Your task to perform on an android device: What's on my calendar today? Image 0: 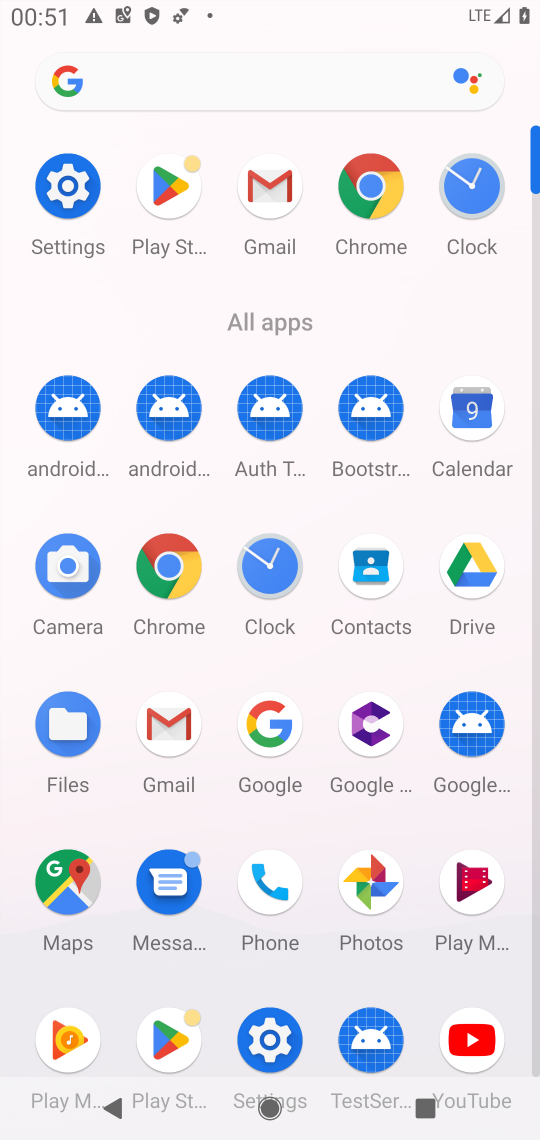
Step 0: press home button
Your task to perform on an android device: What's on my calendar today? Image 1: 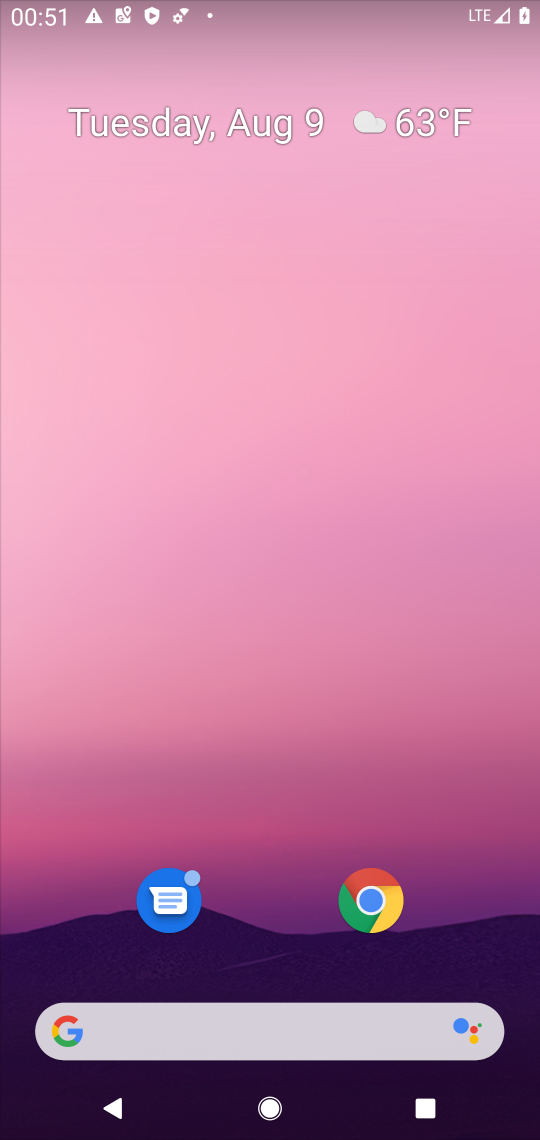
Step 1: drag from (279, 784) to (353, 218)
Your task to perform on an android device: What's on my calendar today? Image 2: 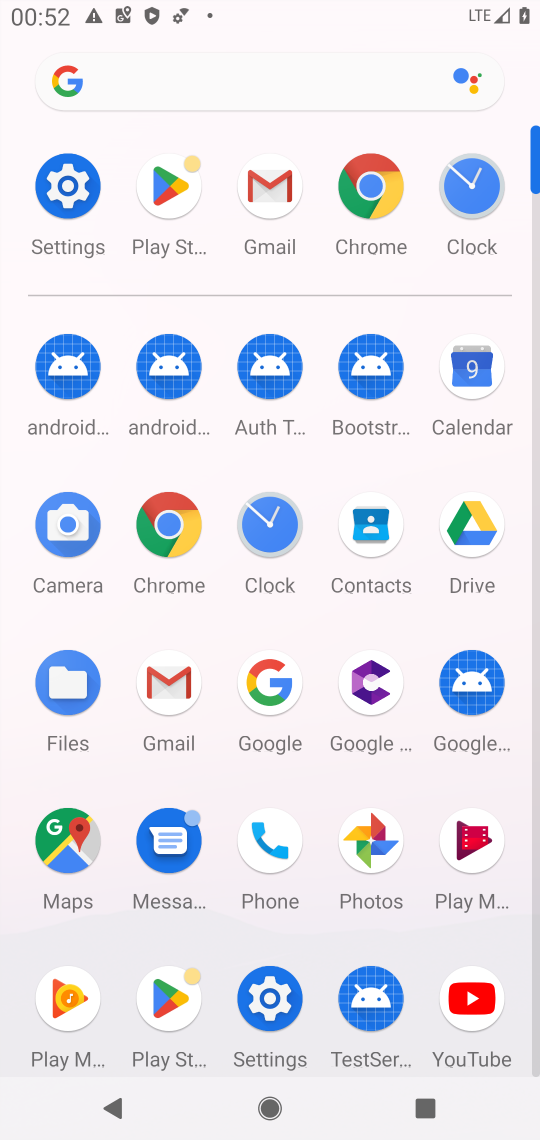
Step 2: click (468, 358)
Your task to perform on an android device: What's on my calendar today? Image 3: 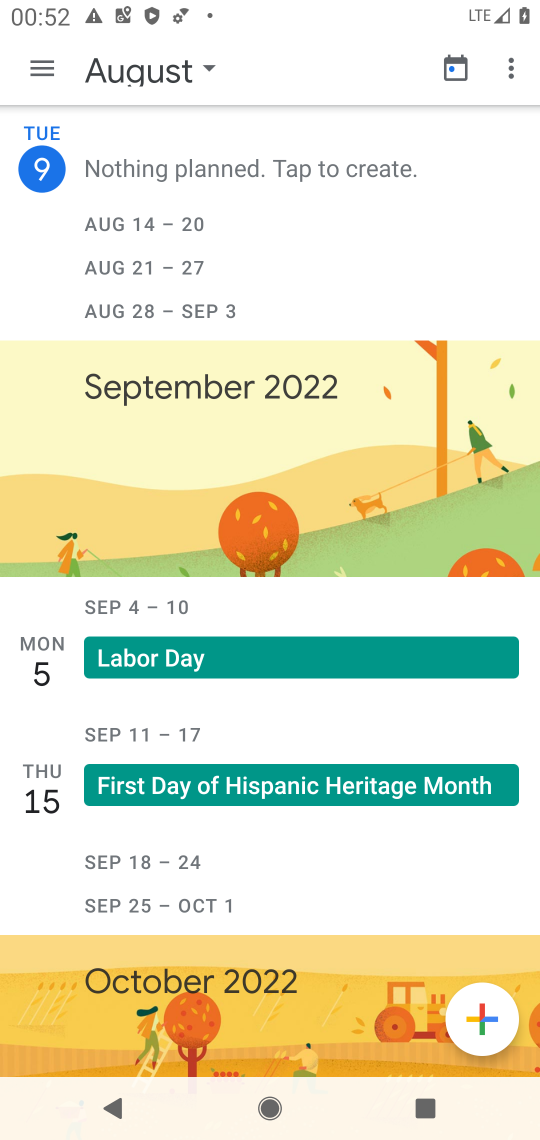
Step 3: task complete